Your task to perform on an android device: Open location settings Image 0: 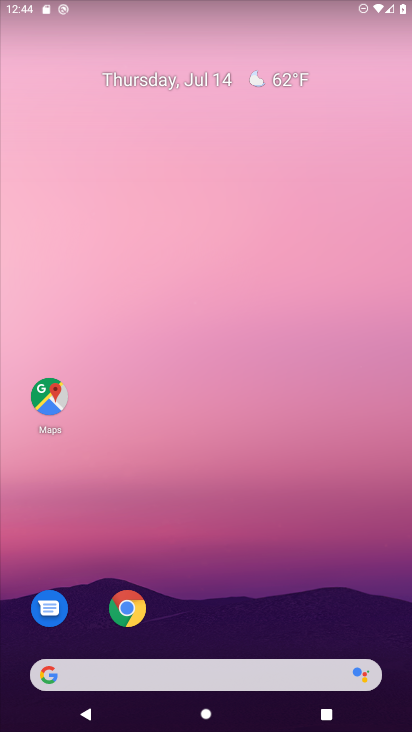
Step 0: drag from (237, 720) to (237, 175)
Your task to perform on an android device: Open location settings Image 1: 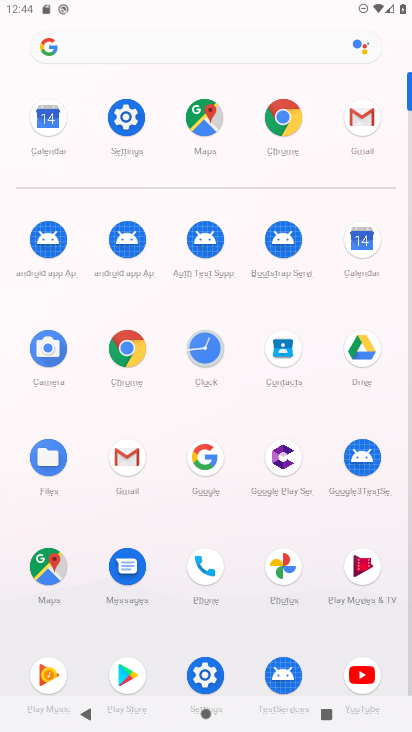
Step 1: click (128, 113)
Your task to perform on an android device: Open location settings Image 2: 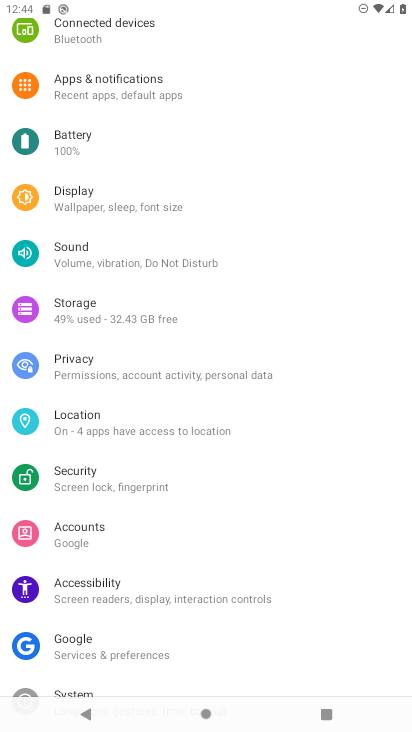
Step 2: click (78, 416)
Your task to perform on an android device: Open location settings Image 3: 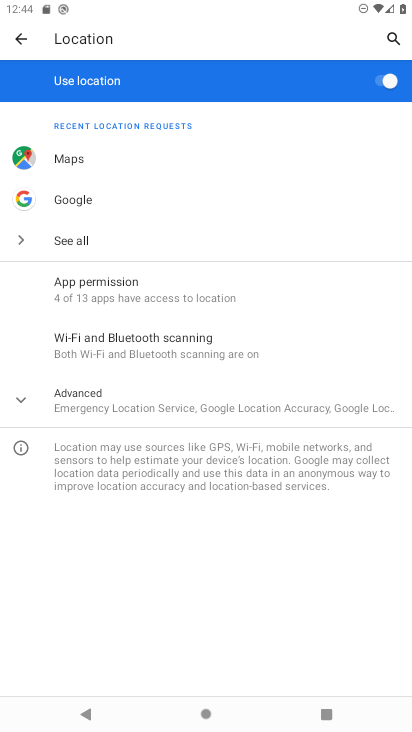
Step 3: task complete